Your task to perform on an android device: Show the shopping cart on newegg. Add logitech g pro to the cart on newegg Image 0: 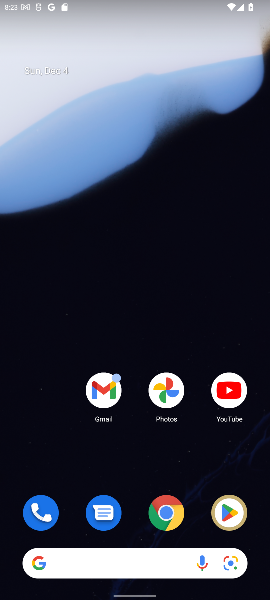
Step 0: click (167, 498)
Your task to perform on an android device: Show the shopping cart on newegg. Add logitech g pro to the cart on newegg Image 1: 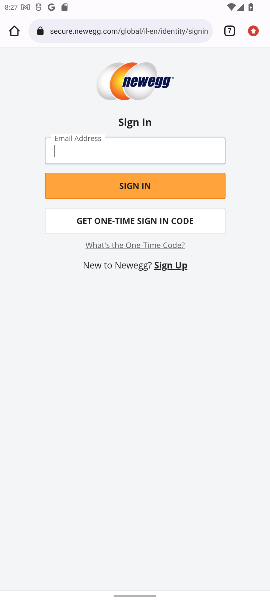
Step 1: press back button
Your task to perform on an android device: Show the shopping cart on newegg. Add logitech g pro to the cart on newegg Image 2: 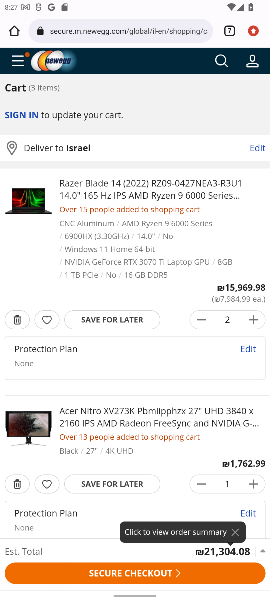
Step 2: click (224, 59)
Your task to perform on an android device: Show the shopping cart on newegg. Add logitech g pro to the cart on newegg Image 3: 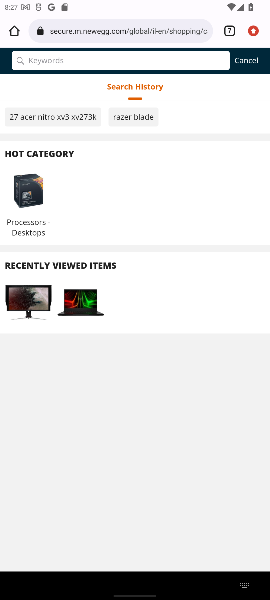
Step 3: type "logitech g pro"
Your task to perform on an android device: Show the shopping cart on newegg. Add logitech g pro to the cart on newegg Image 4: 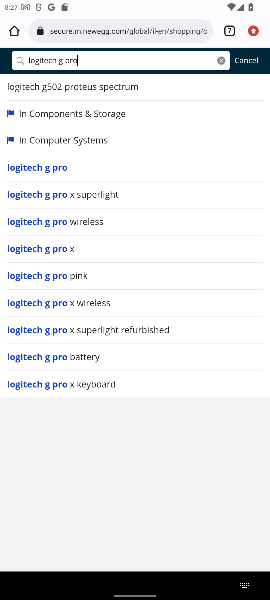
Step 4: click (46, 167)
Your task to perform on an android device: Show the shopping cart on newegg. Add logitech g pro to the cart on newegg Image 5: 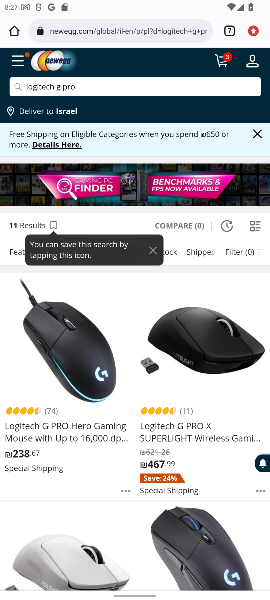
Step 5: click (79, 434)
Your task to perform on an android device: Show the shopping cart on newegg. Add logitech g pro to the cart on newegg Image 6: 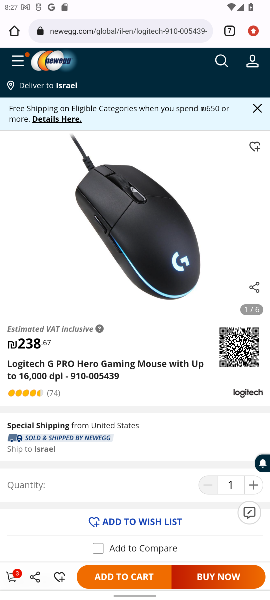
Step 6: click (128, 578)
Your task to perform on an android device: Show the shopping cart on newegg. Add logitech g pro to the cart on newegg Image 7: 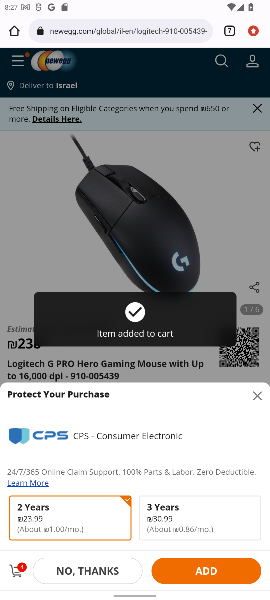
Step 7: task complete